Your task to perform on an android device: refresh tabs in the chrome app Image 0: 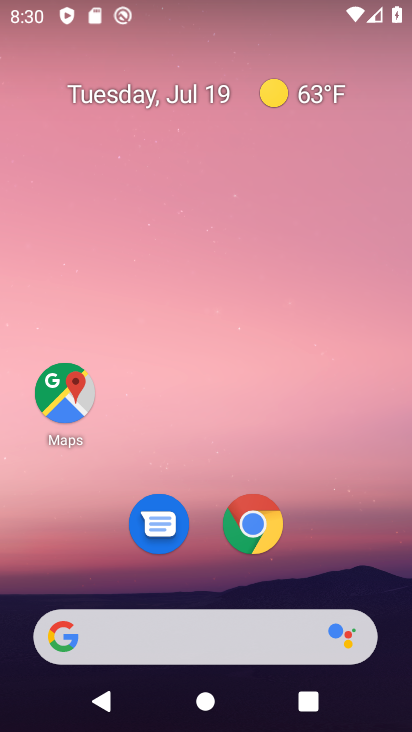
Step 0: click (263, 532)
Your task to perform on an android device: refresh tabs in the chrome app Image 1: 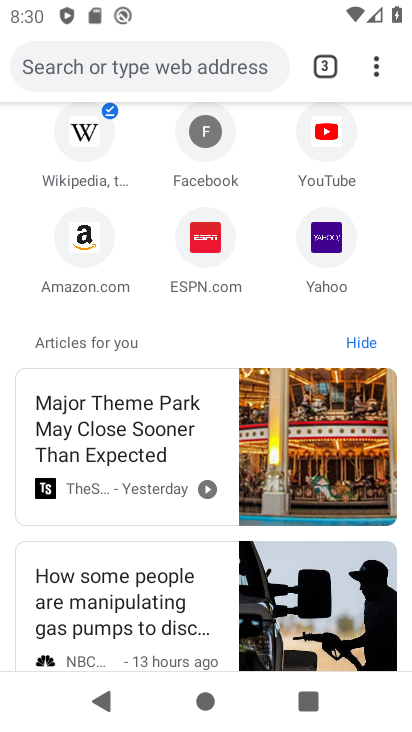
Step 1: click (375, 87)
Your task to perform on an android device: refresh tabs in the chrome app Image 2: 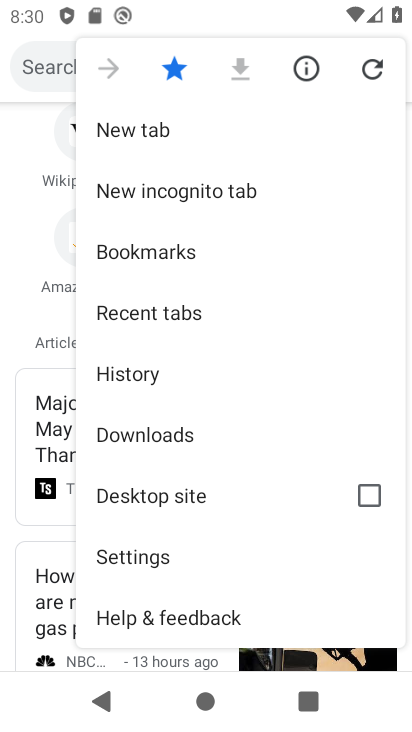
Step 2: click (370, 73)
Your task to perform on an android device: refresh tabs in the chrome app Image 3: 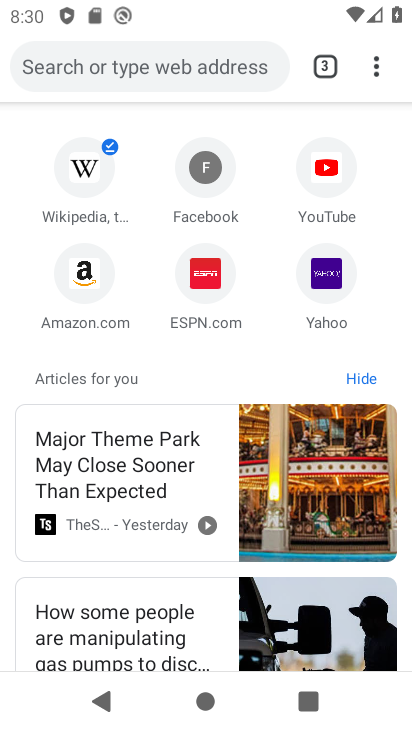
Step 3: task complete